Your task to perform on an android device: turn off notifications in google photos Image 0: 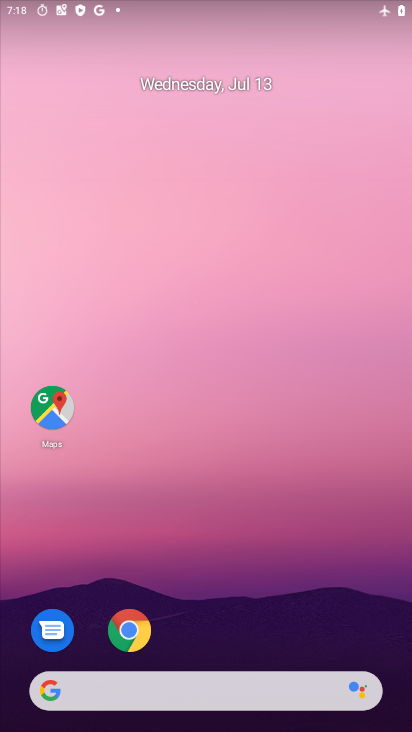
Step 0: drag from (317, 634) to (220, 25)
Your task to perform on an android device: turn off notifications in google photos Image 1: 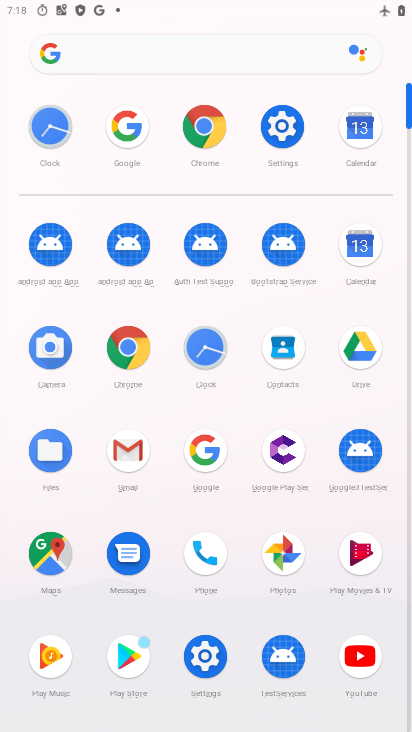
Step 1: click (280, 533)
Your task to perform on an android device: turn off notifications in google photos Image 2: 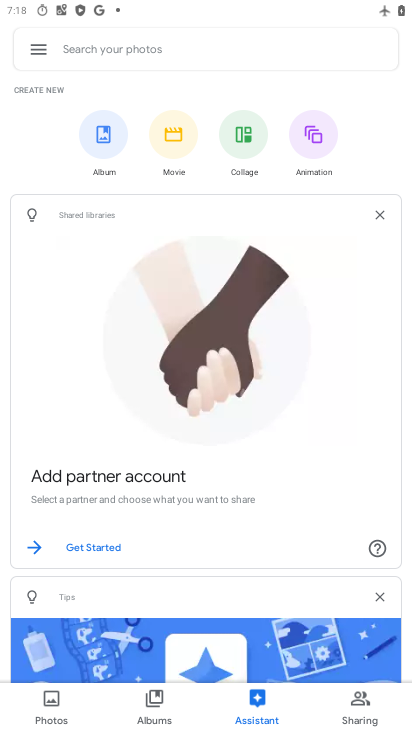
Step 2: click (37, 48)
Your task to perform on an android device: turn off notifications in google photos Image 3: 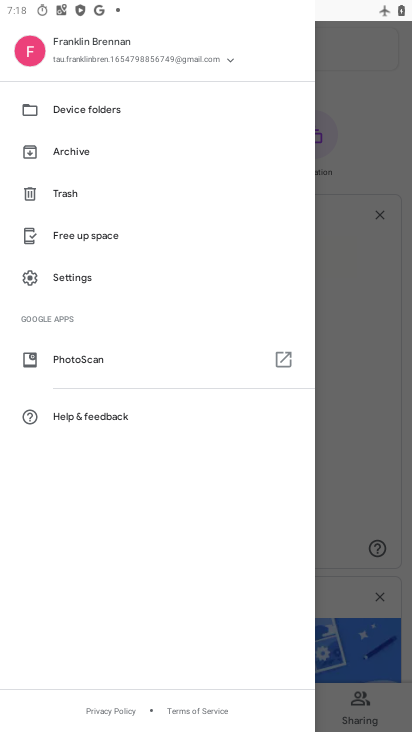
Step 3: click (101, 284)
Your task to perform on an android device: turn off notifications in google photos Image 4: 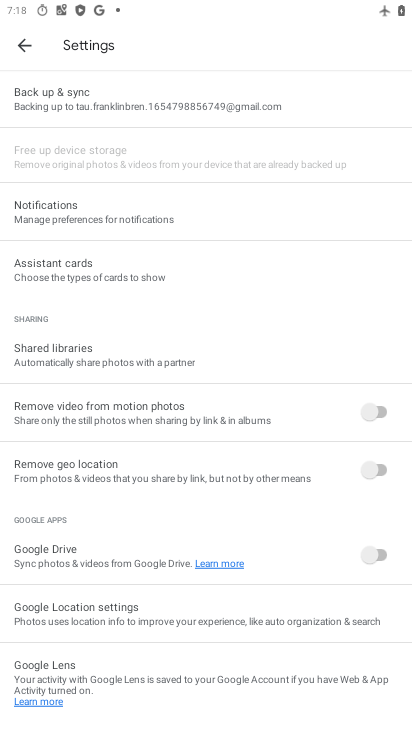
Step 4: click (121, 209)
Your task to perform on an android device: turn off notifications in google photos Image 5: 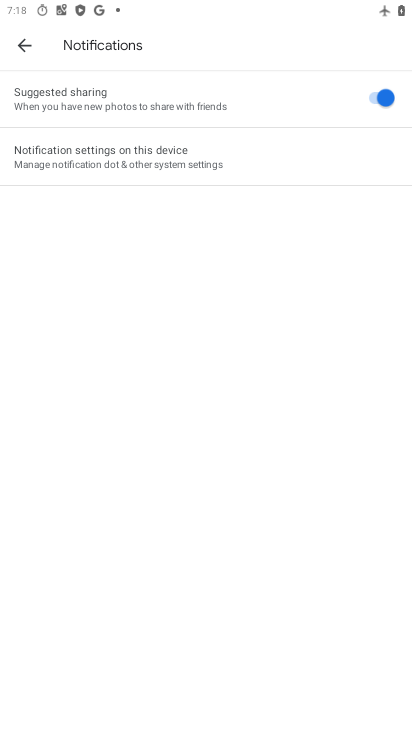
Step 5: click (284, 89)
Your task to perform on an android device: turn off notifications in google photos Image 6: 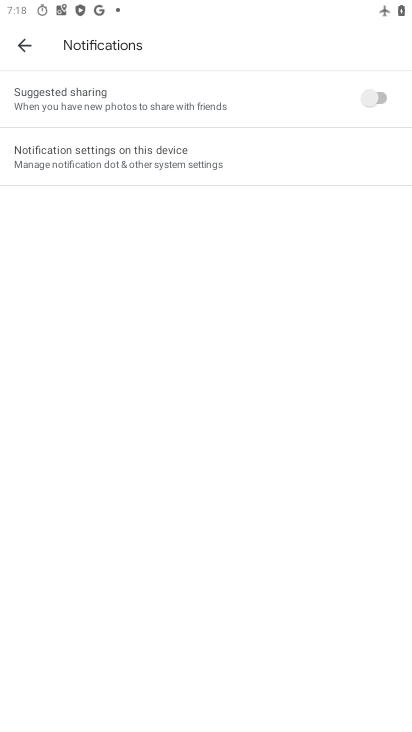
Step 6: task complete